Your task to perform on an android device: open app "Roku - Official Remote Control" Image 0: 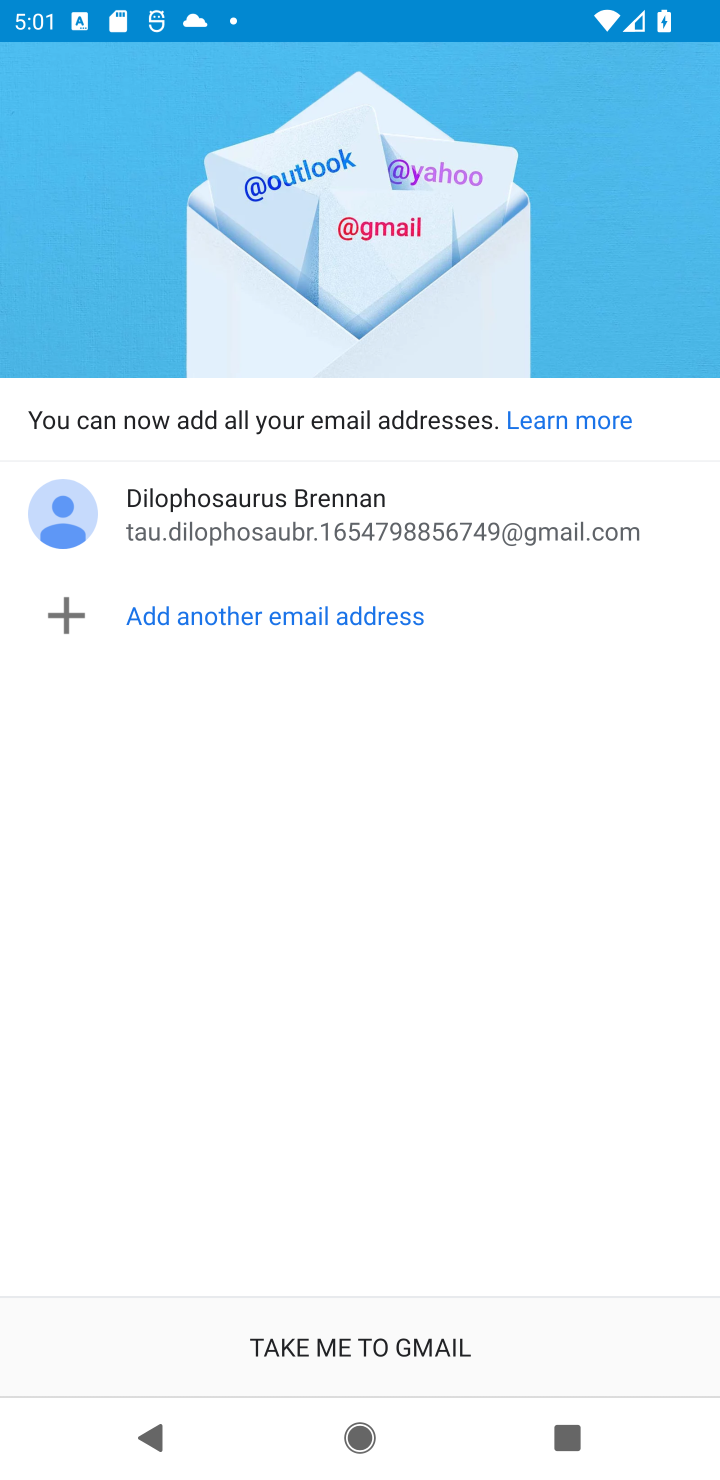
Step 0: press home button
Your task to perform on an android device: open app "Roku - Official Remote Control" Image 1: 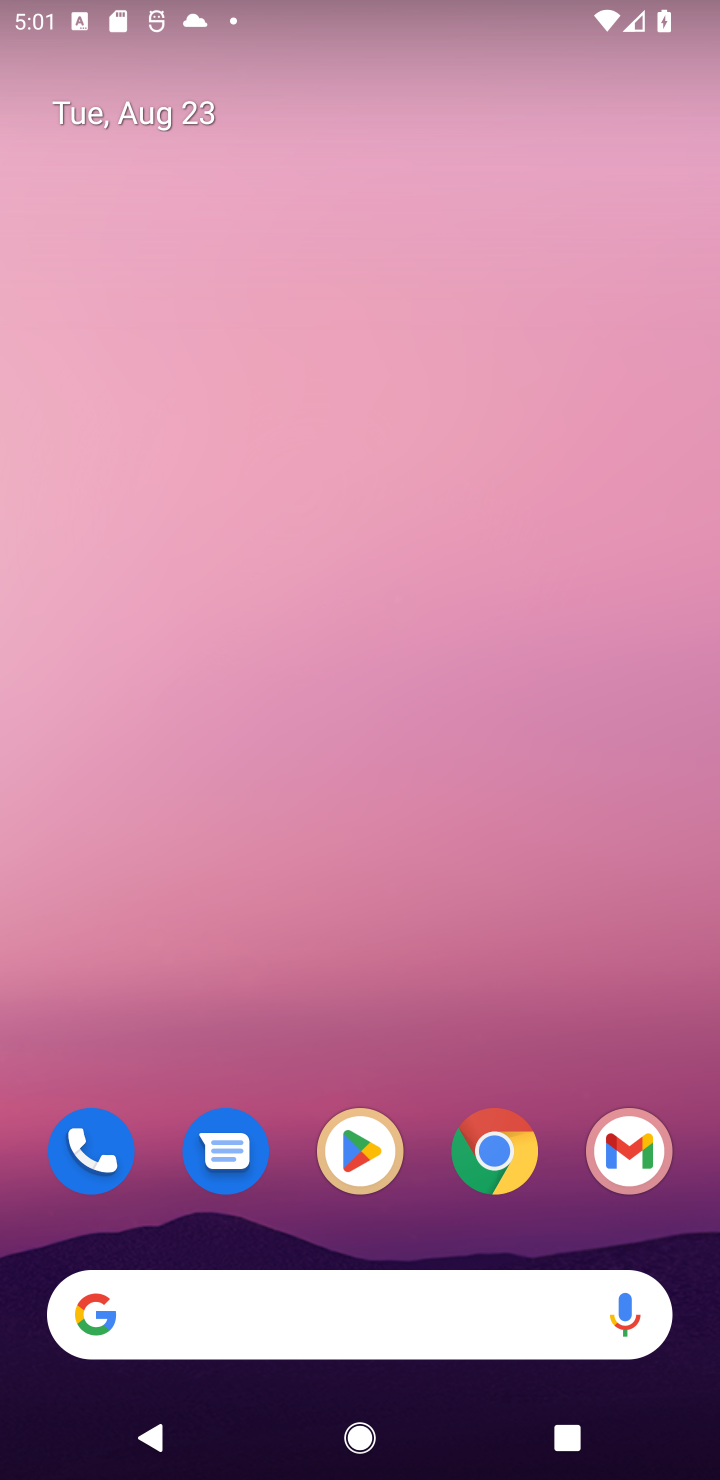
Step 1: click (351, 1158)
Your task to perform on an android device: open app "Roku - Official Remote Control" Image 2: 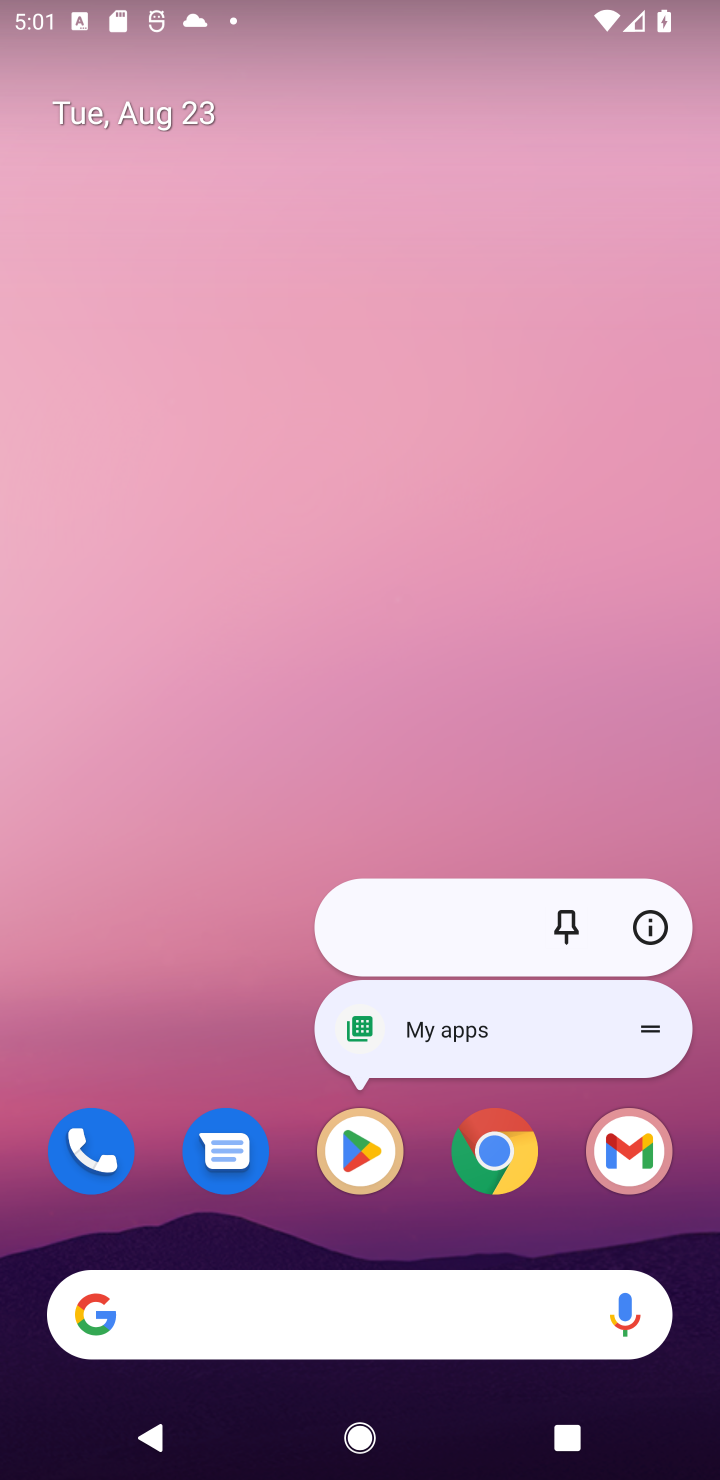
Step 2: click (351, 1163)
Your task to perform on an android device: open app "Roku - Official Remote Control" Image 3: 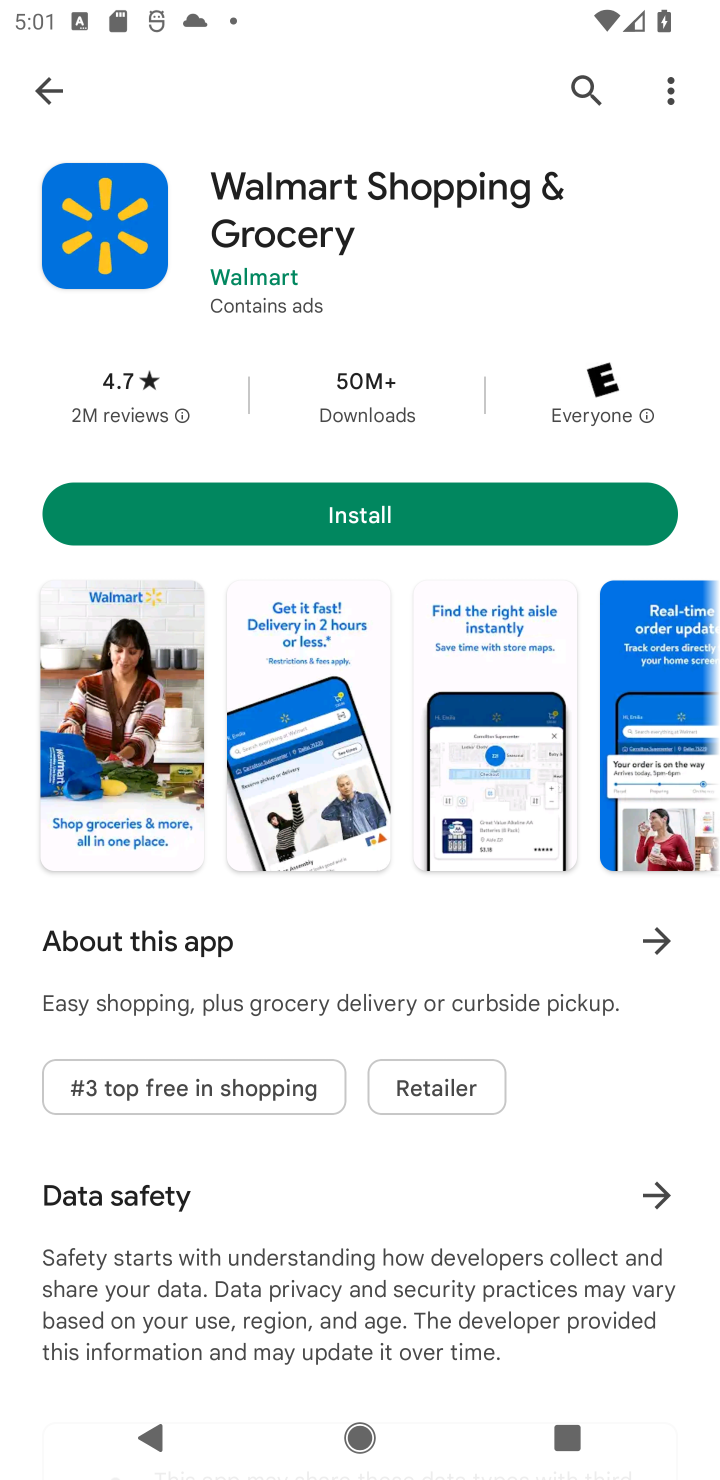
Step 3: click (576, 88)
Your task to perform on an android device: open app "Roku - Official Remote Control" Image 4: 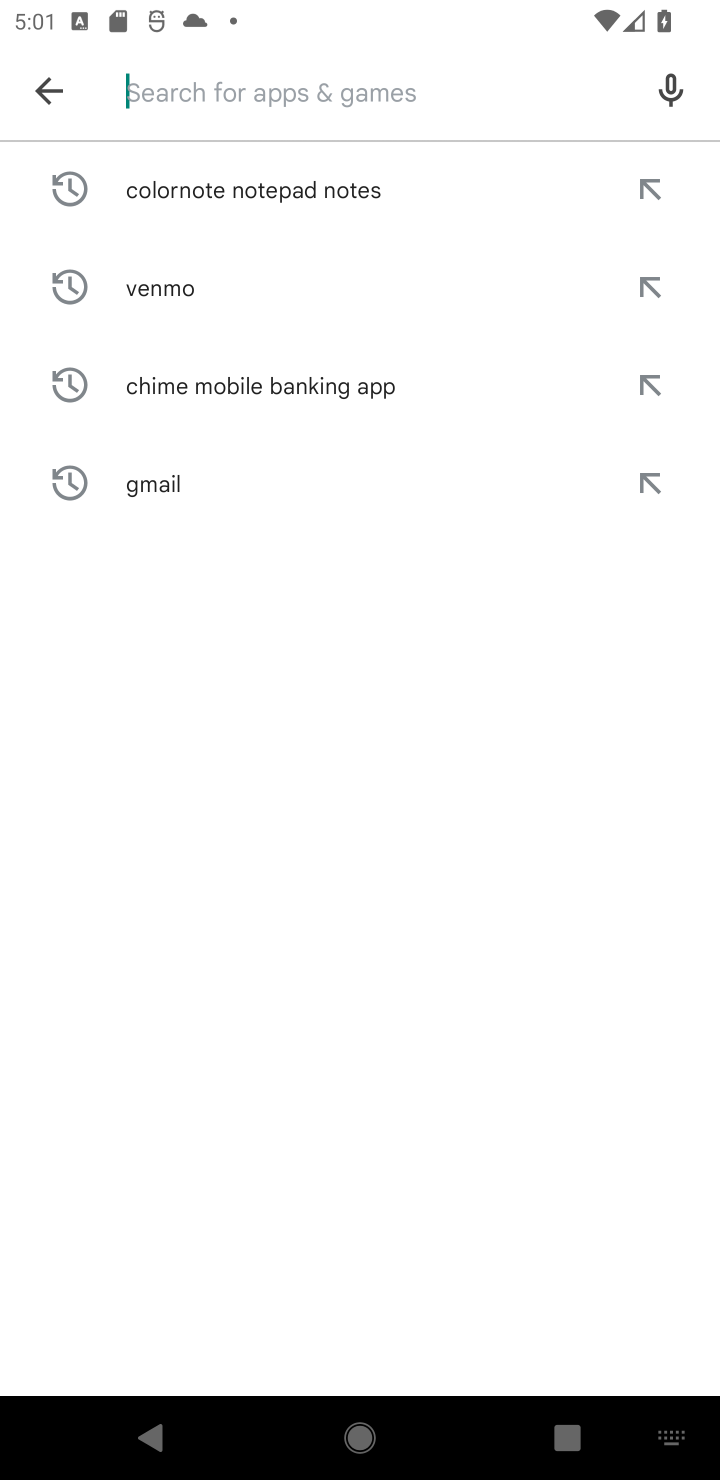
Step 4: type "Roku - Official Remote Control"
Your task to perform on an android device: open app "Roku - Official Remote Control" Image 5: 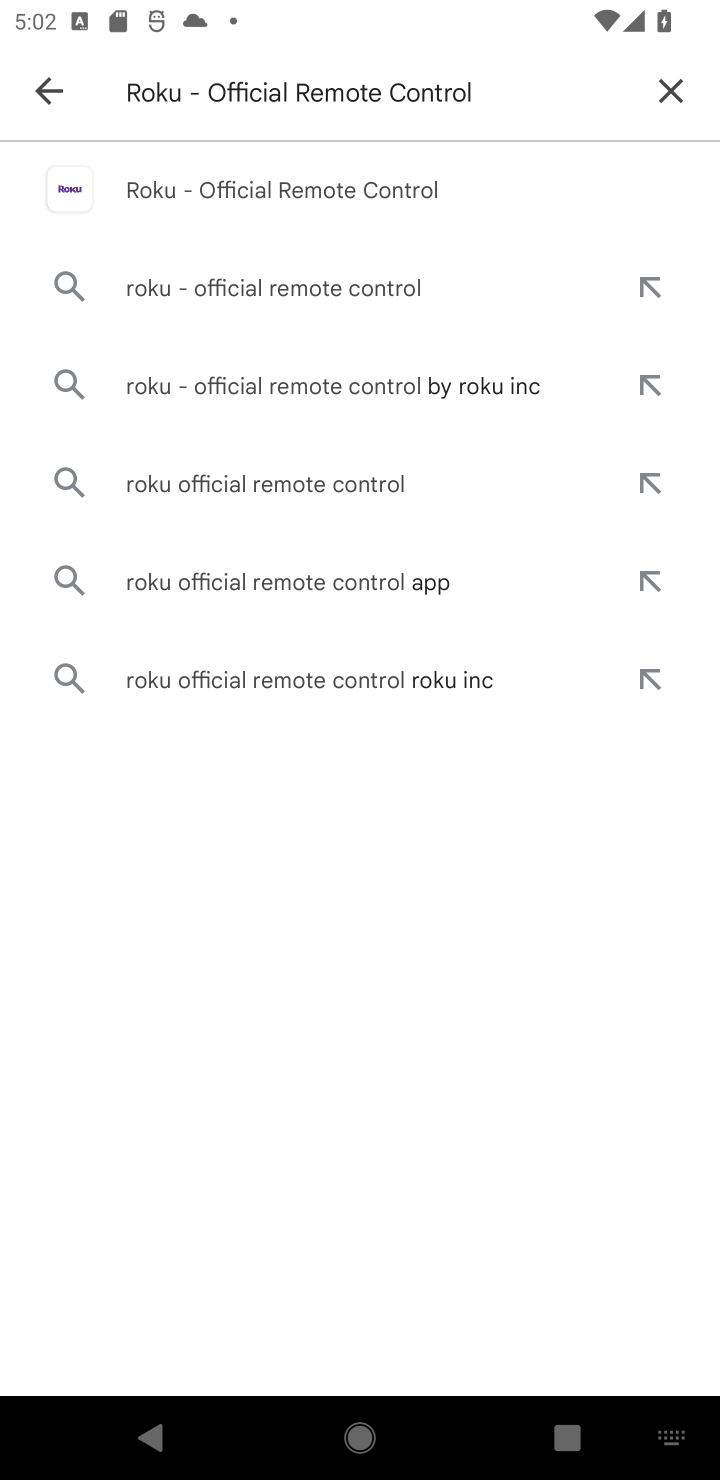
Step 5: click (327, 196)
Your task to perform on an android device: open app "Roku - Official Remote Control" Image 6: 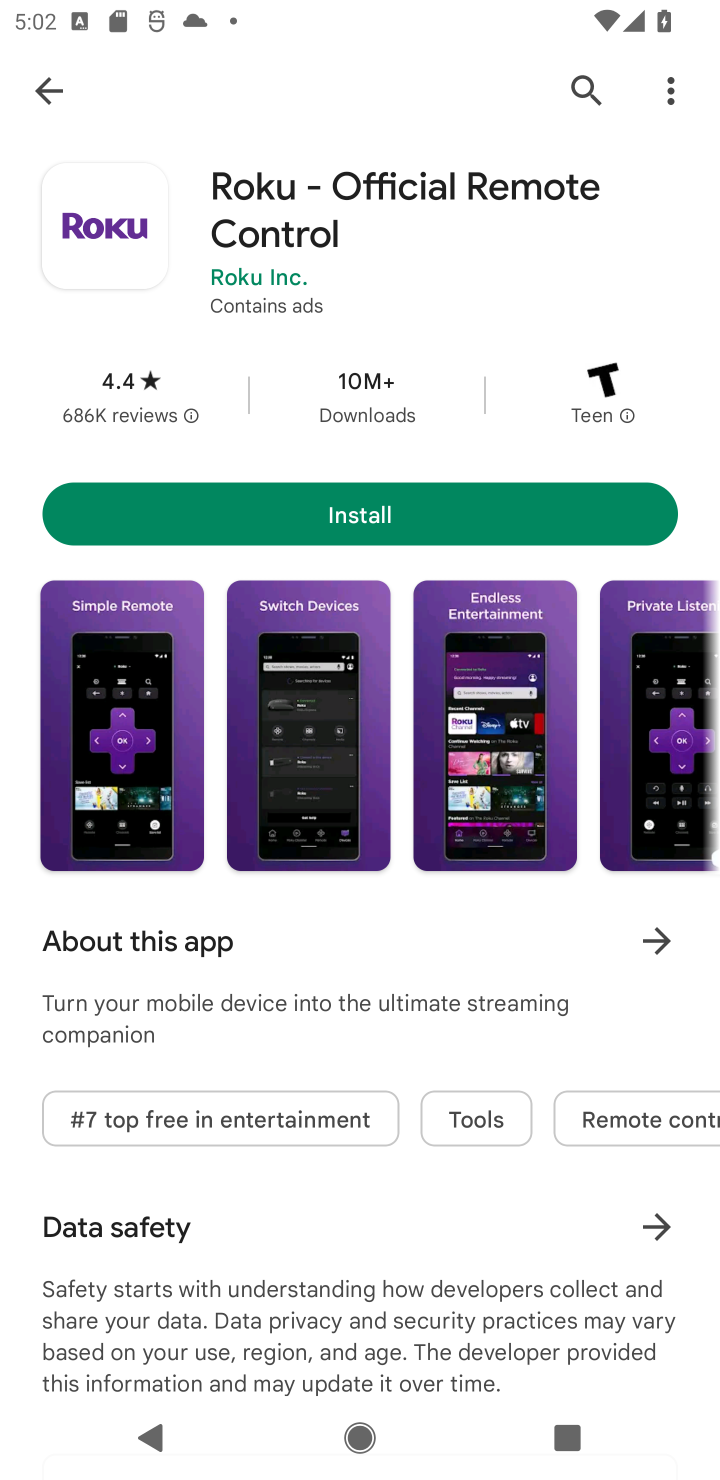
Step 6: task complete